Your task to perform on an android device: Open Chrome and go to the settings page Image 0: 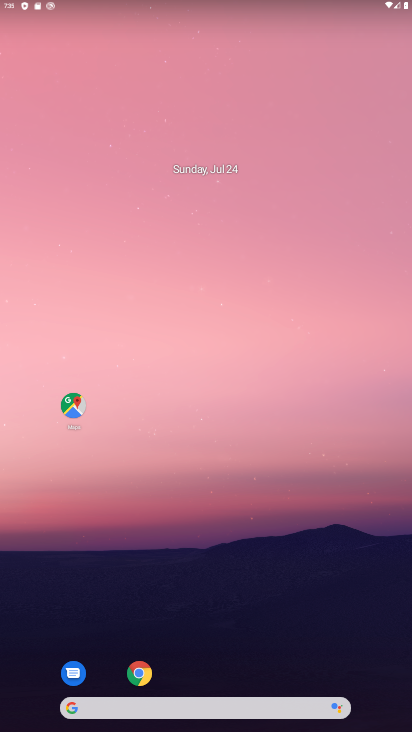
Step 0: drag from (184, 651) to (286, 188)
Your task to perform on an android device: Open Chrome and go to the settings page Image 1: 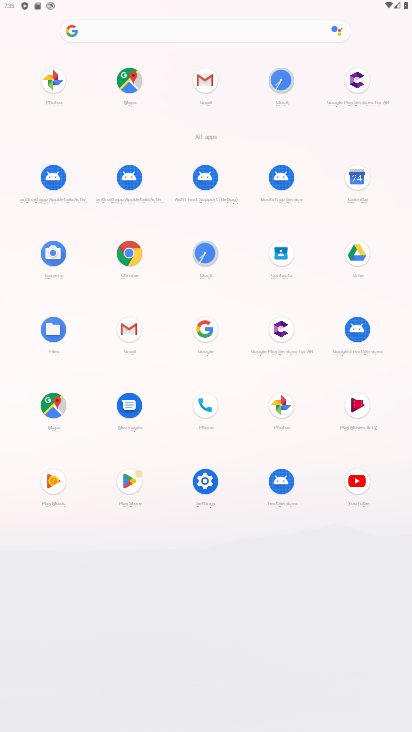
Step 1: click (215, 488)
Your task to perform on an android device: Open Chrome and go to the settings page Image 2: 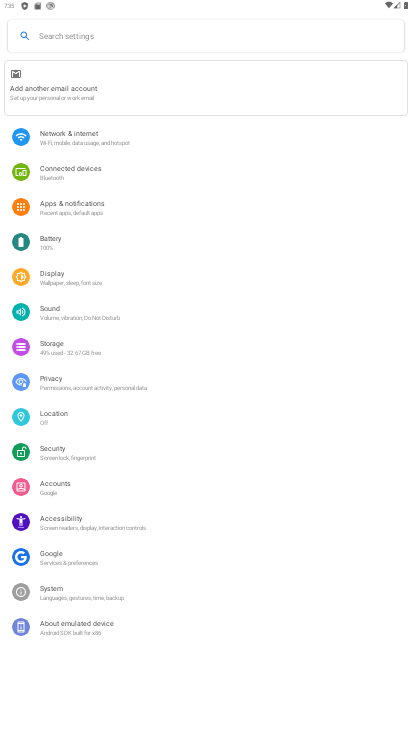
Step 2: drag from (248, 568) to (330, 354)
Your task to perform on an android device: Open Chrome and go to the settings page Image 3: 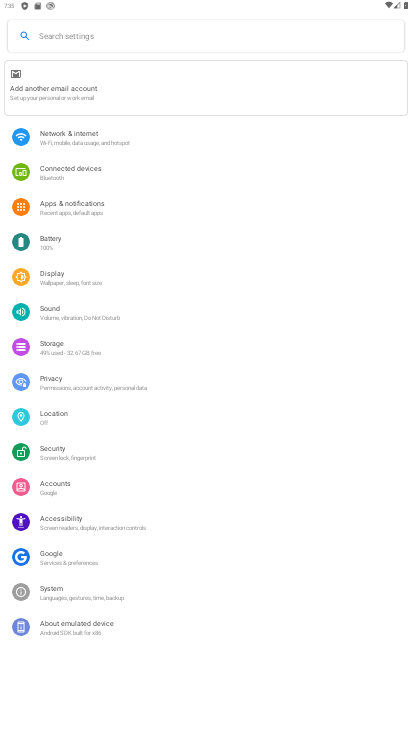
Step 3: press home button
Your task to perform on an android device: Open Chrome and go to the settings page Image 4: 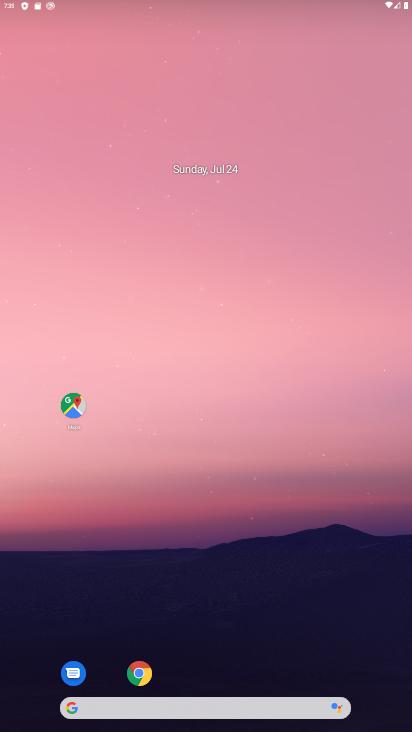
Step 4: drag from (173, 521) to (195, 328)
Your task to perform on an android device: Open Chrome and go to the settings page Image 5: 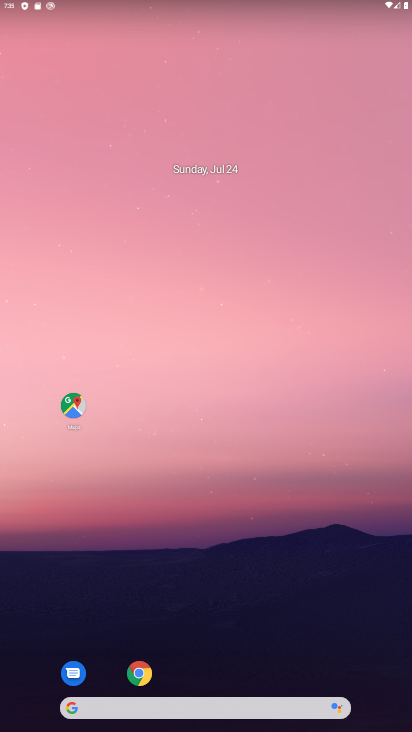
Step 5: drag from (195, 624) to (256, 295)
Your task to perform on an android device: Open Chrome and go to the settings page Image 6: 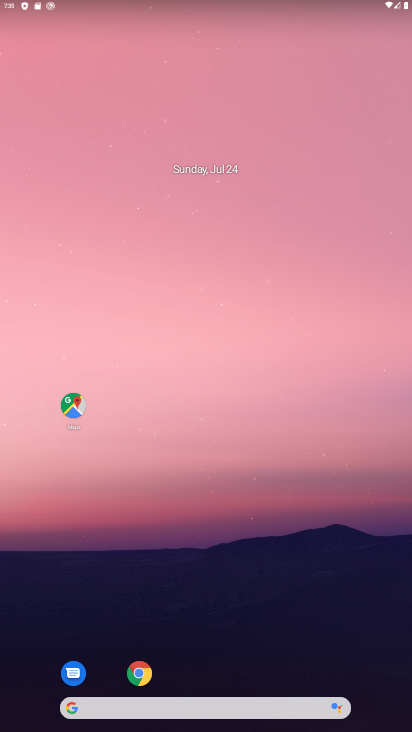
Step 6: drag from (182, 595) to (189, 135)
Your task to perform on an android device: Open Chrome and go to the settings page Image 7: 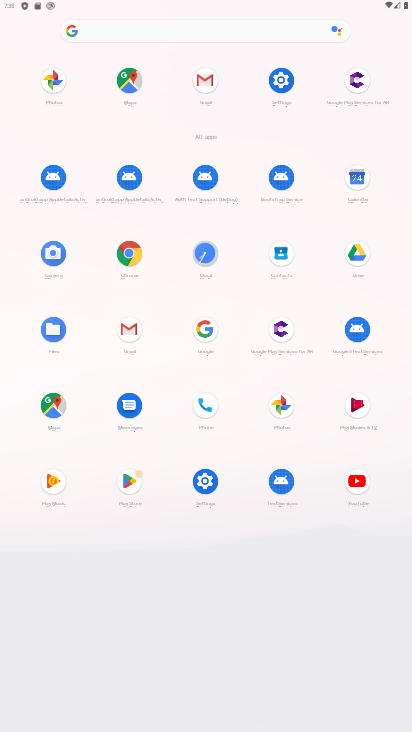
Step 7: click (118, 260)
Your task to perform on an android device: Open Chrome and go to the settings page Image 8: 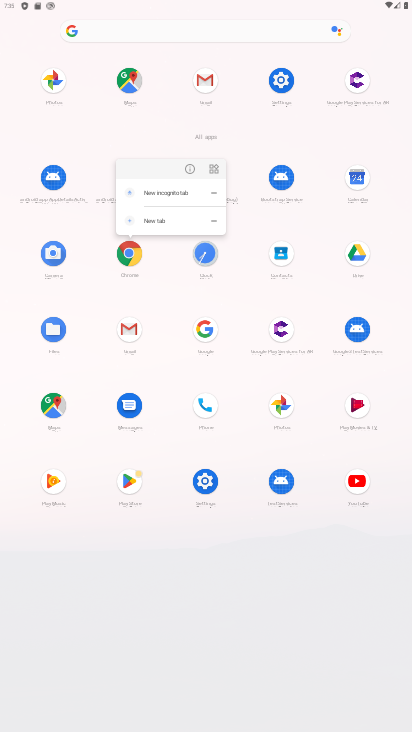
Step 8: click (188, 170)
Your task to perform on an android device: Open Chrome and go to the settings page Image 9: 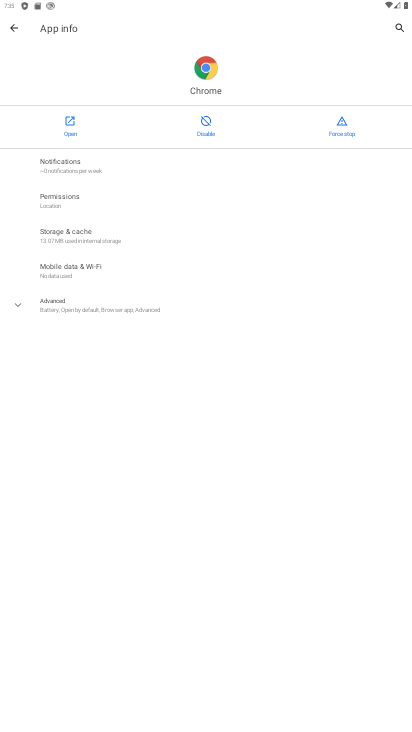
Step 9: click (61, 122)
Your task to perform on an android device: Open Chrome and go to the settings page Image 10: 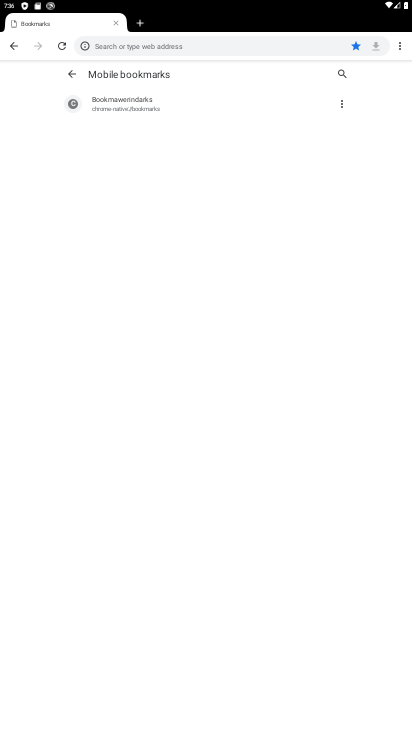
Step 10: task complete